Your task to perform on an android device: When is my next appointment? Image 0: 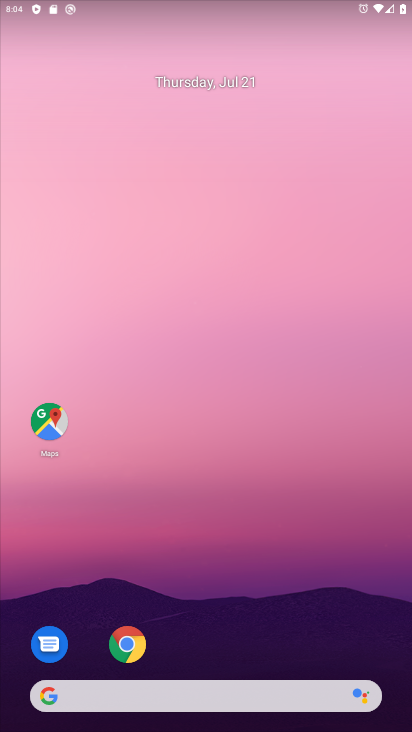
Step 0: drag from (357, 546) to (314, 151)
Your task to perform on an android device: When is my next appointment? Image 1: 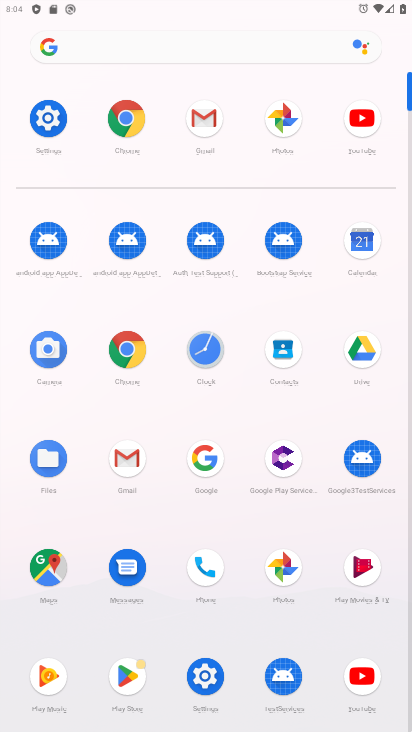
Step 1: click (363, 235)
Your task to perform on an android device: When is my next appointment? Image 2: 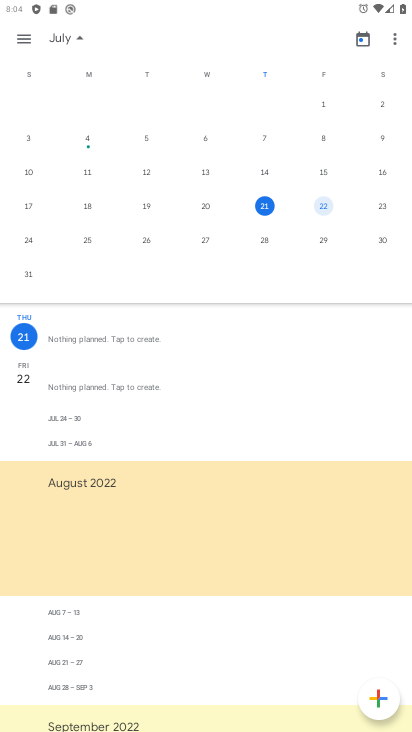
Step 2: task complete